Your task to perform on an android device: open app "Google Translate" (install if not already installed) Image 0: 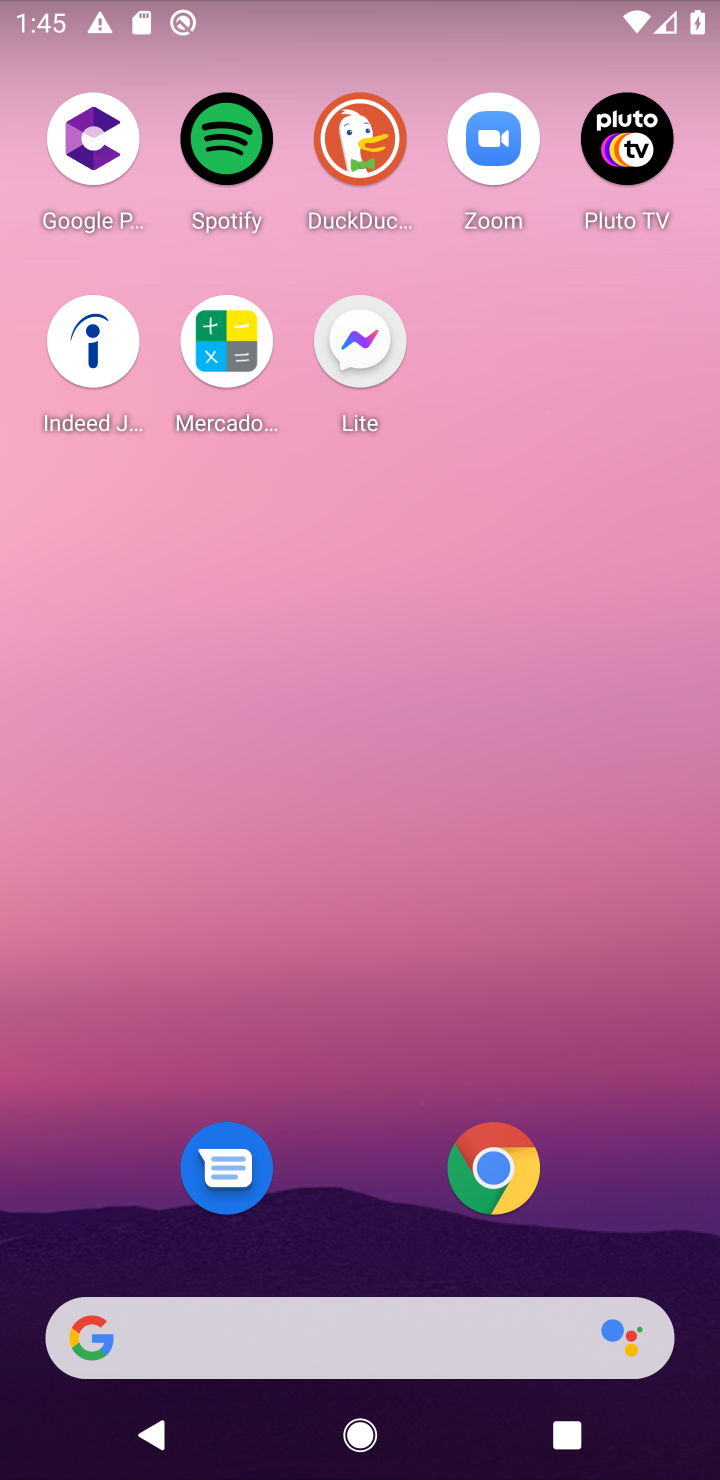
Step 0: drag from (653, 1236) to (523, 187)
Your task to perform on an android device: open app "Google Translate" (install if not already installed) Image 1: 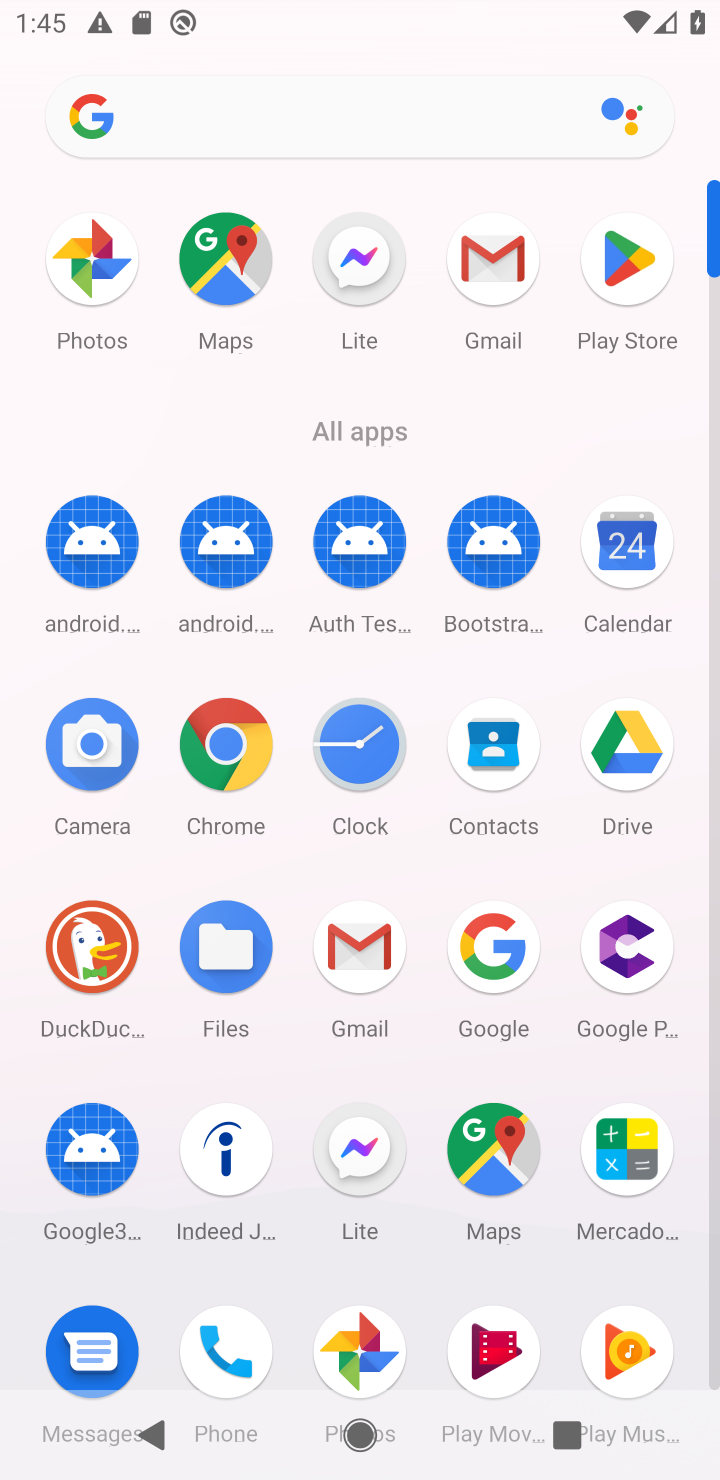
Step 1: drag from (430, 1249) to (360, 415)
Your task to perform on an android device: open app "Google Translate" (install if not already installed) Image 2: 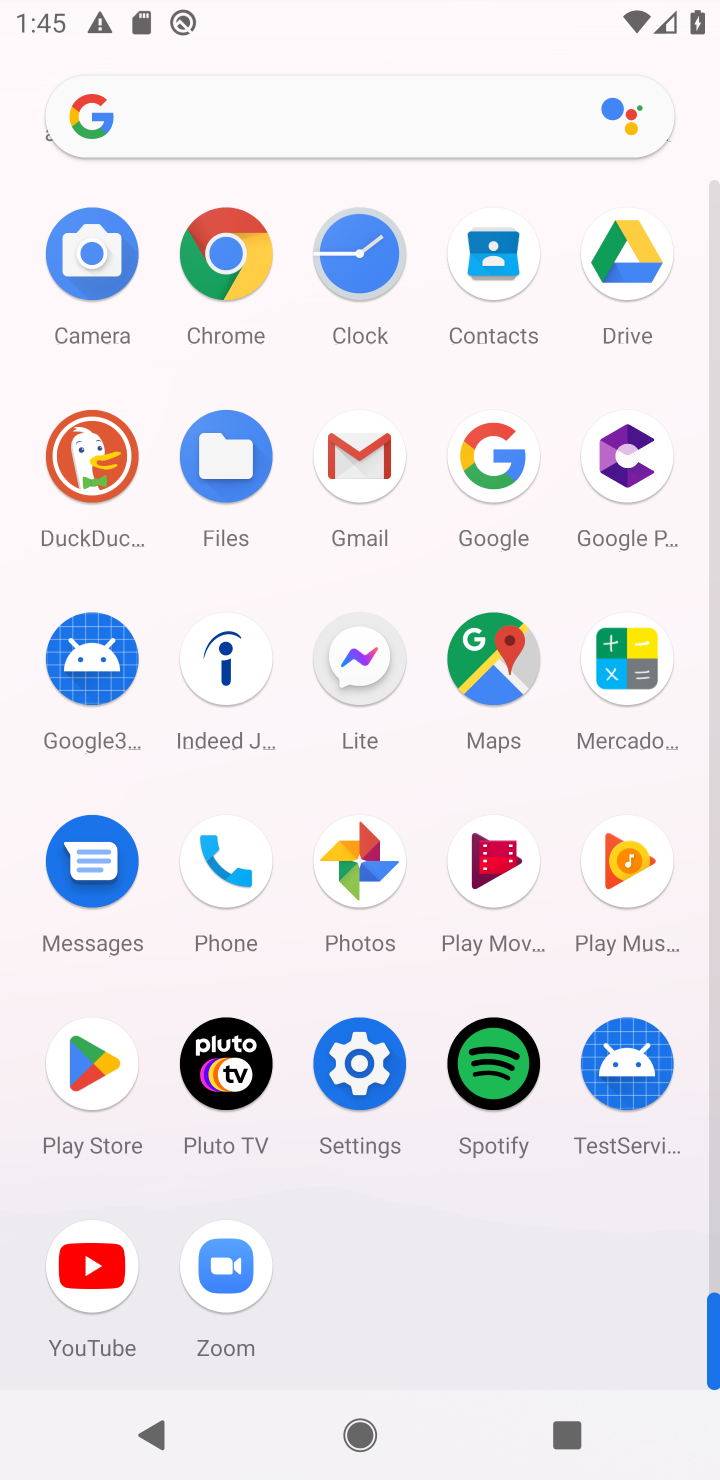
Step 2: click (93, 1068)
Your task to perform on an android device: open app "Google Translate" (install if not already installed) Image 3: 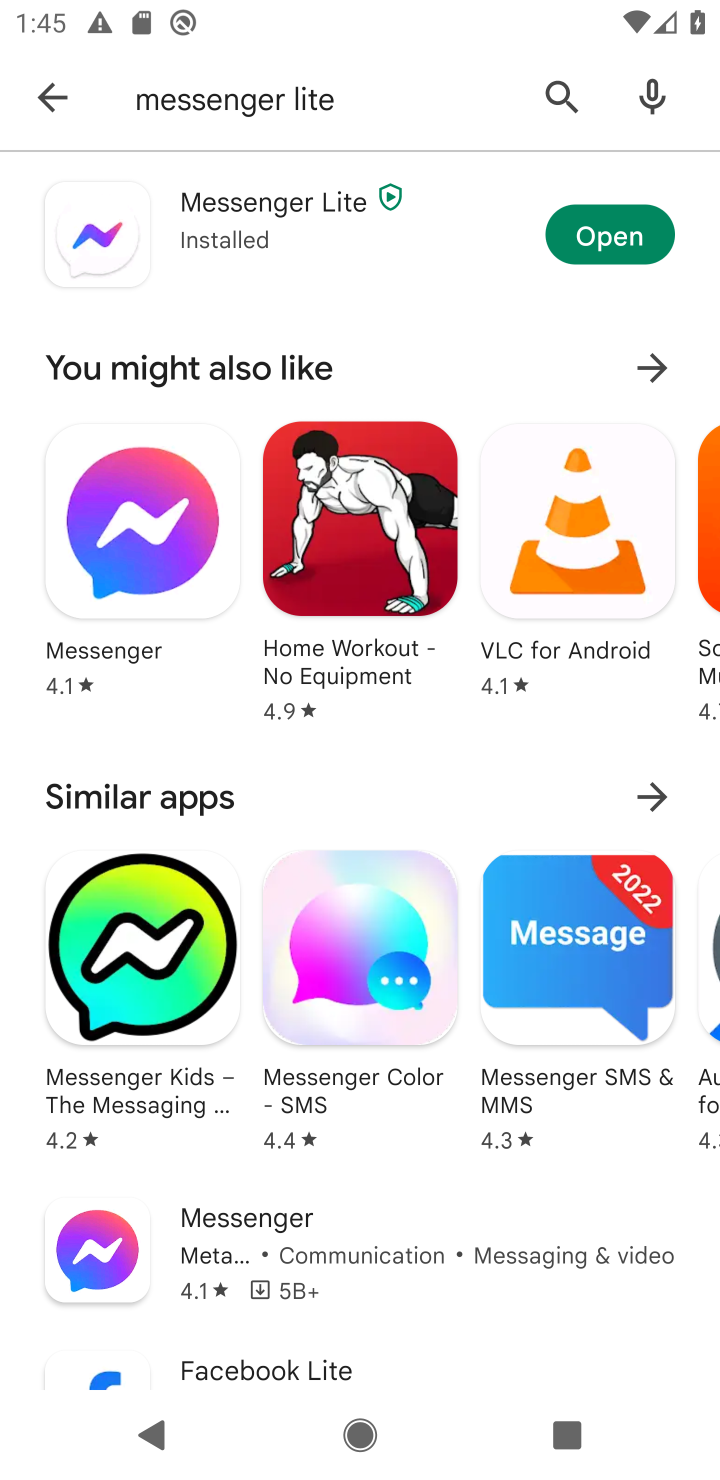
Step 3: click (562, 101)
Your task to perform on an android device: open app "Google Translate" (install if not already installed) Image 4: 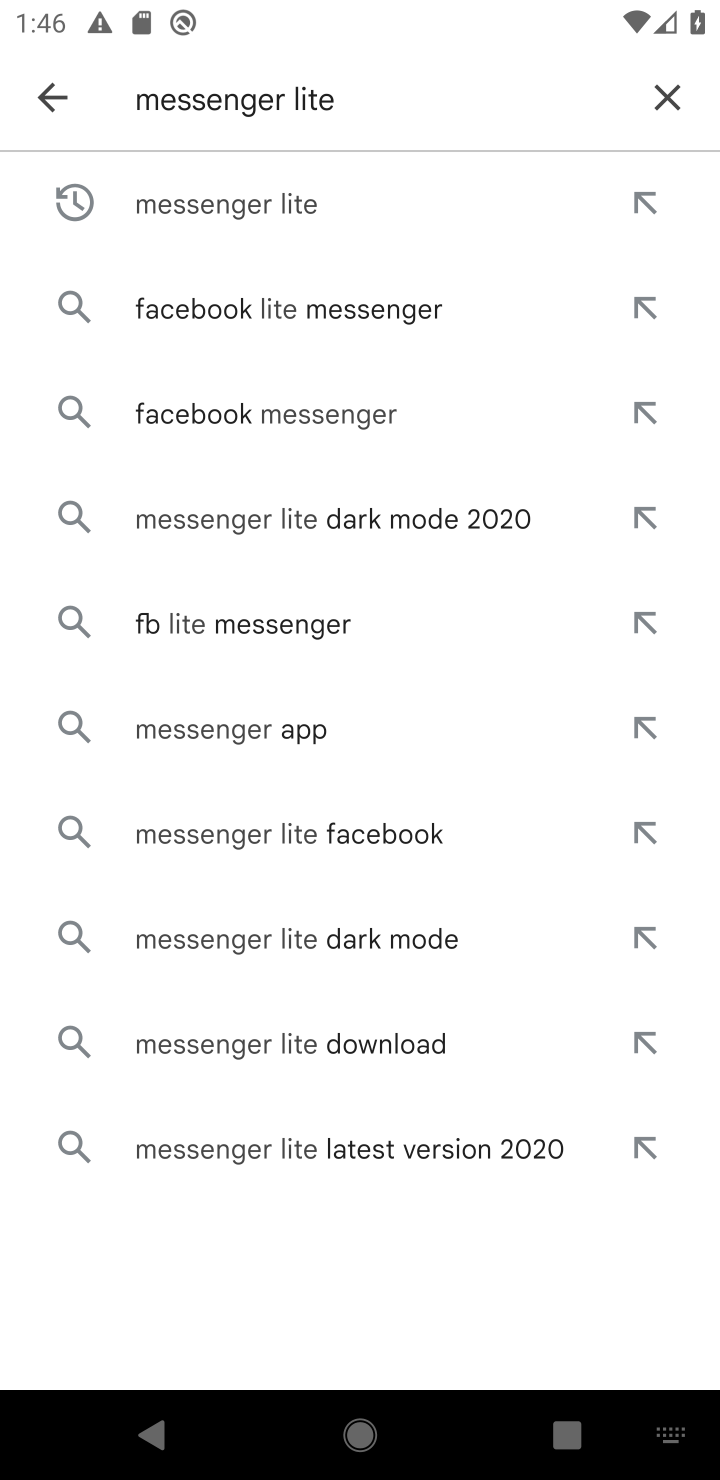
Step 4: click (672, 95)
Your task to perform on an android device: open app "Google Translate" (install if not already installed) Image 5: 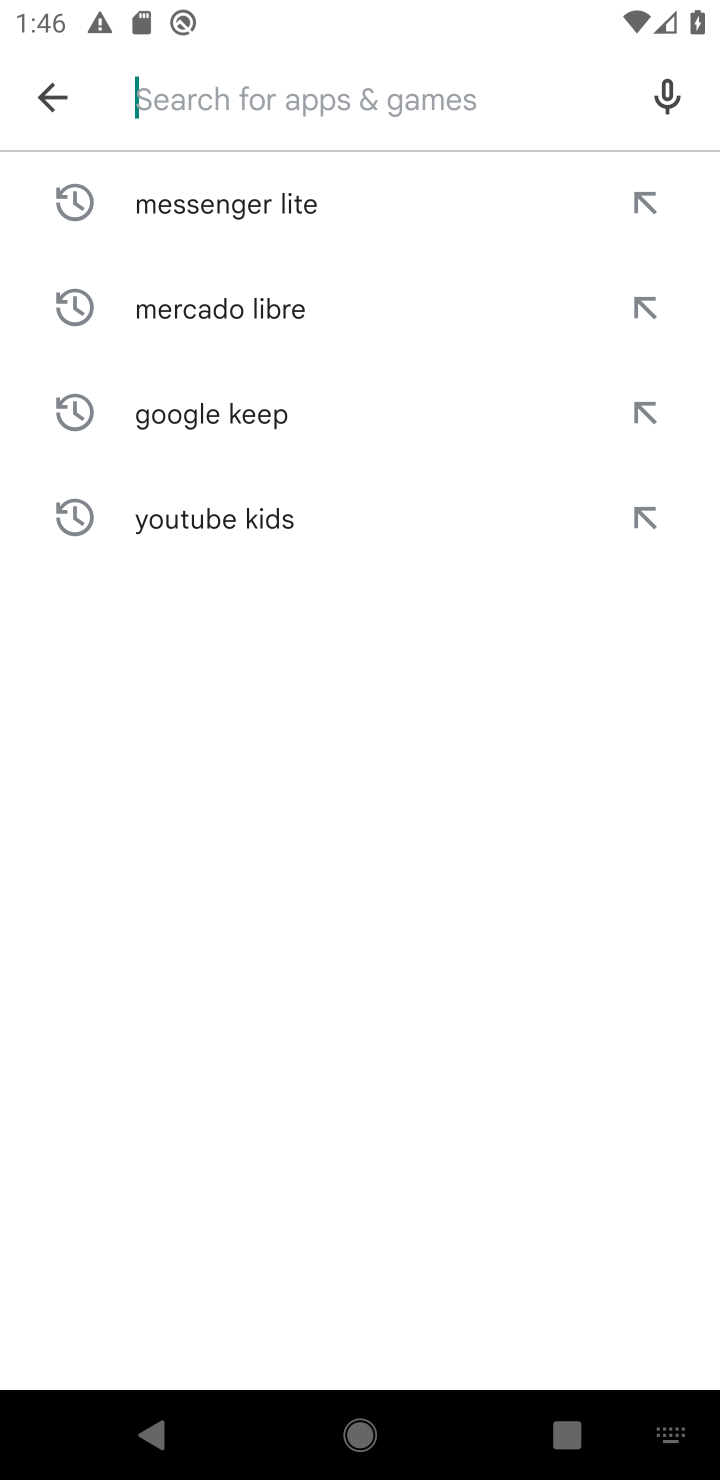
Step 5: type "Google Translate"
Your task to perform on an android device: open app "Google Translate" (install if not already installed) Image 6: 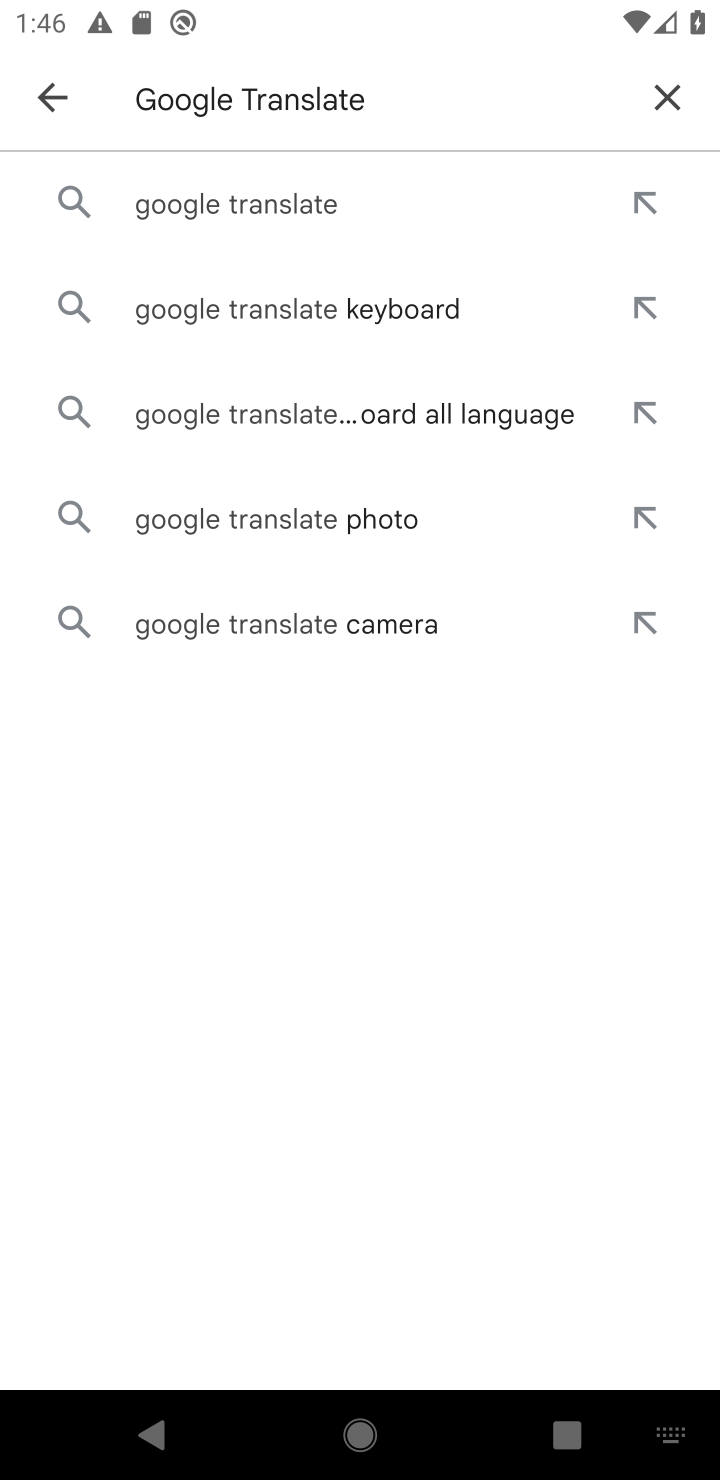
Step 6: click (253, 203)
Your task to perform on an android device: open app "Google Translate" (install if not already installed) Image 7: 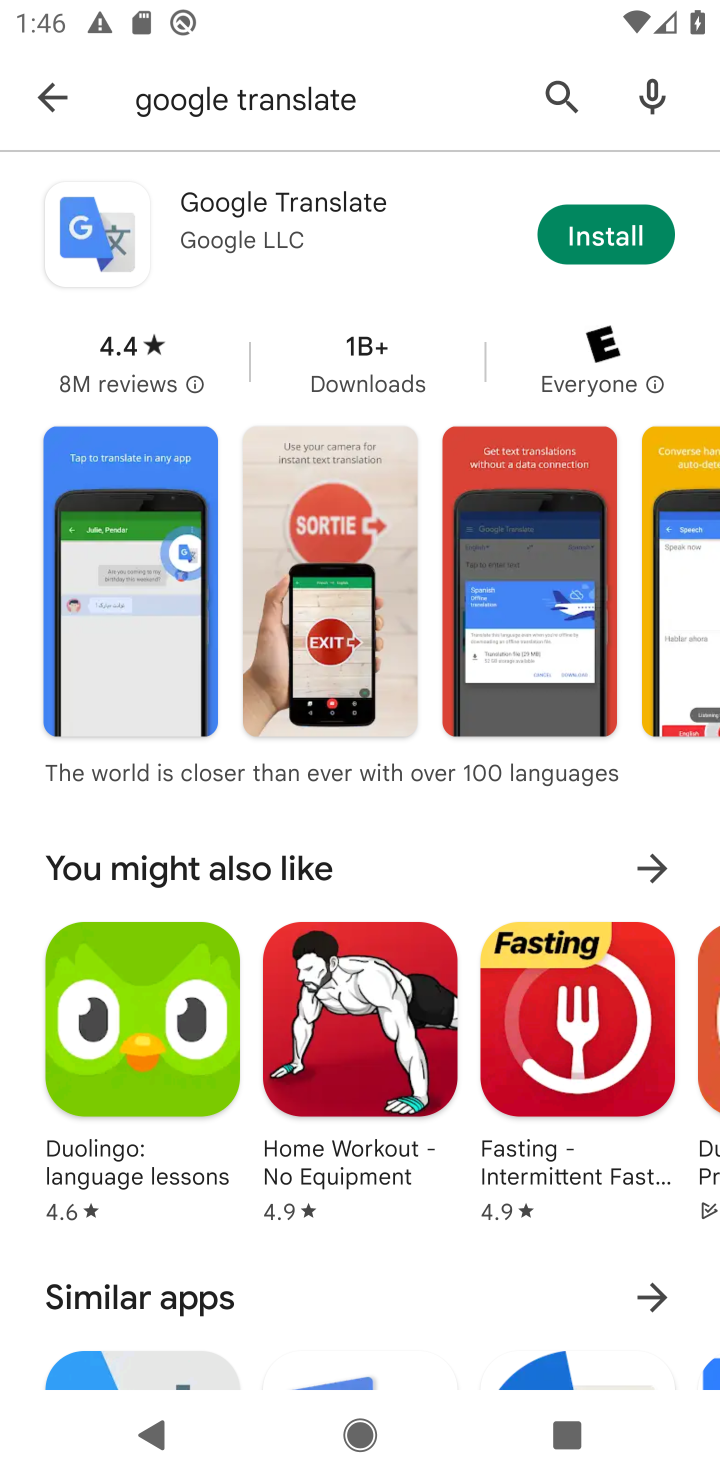
Step 7: click (259, 212)
Your task to perform on an android device: open app "Google Translate" (install if not already installed) Image 8: 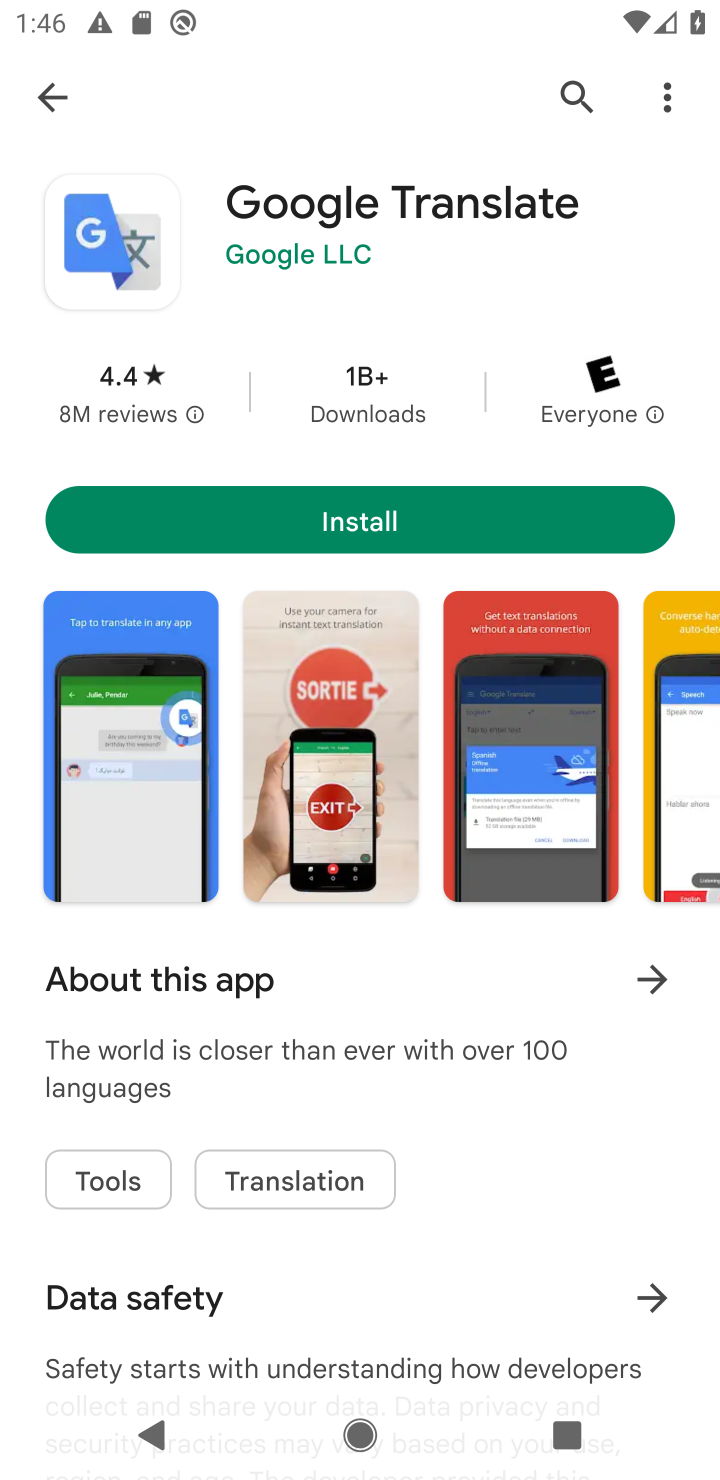
Step 8: click (350, 515)
Your task to perform on an android device: open app "Google Translate" (install if not already installed) Image 9: 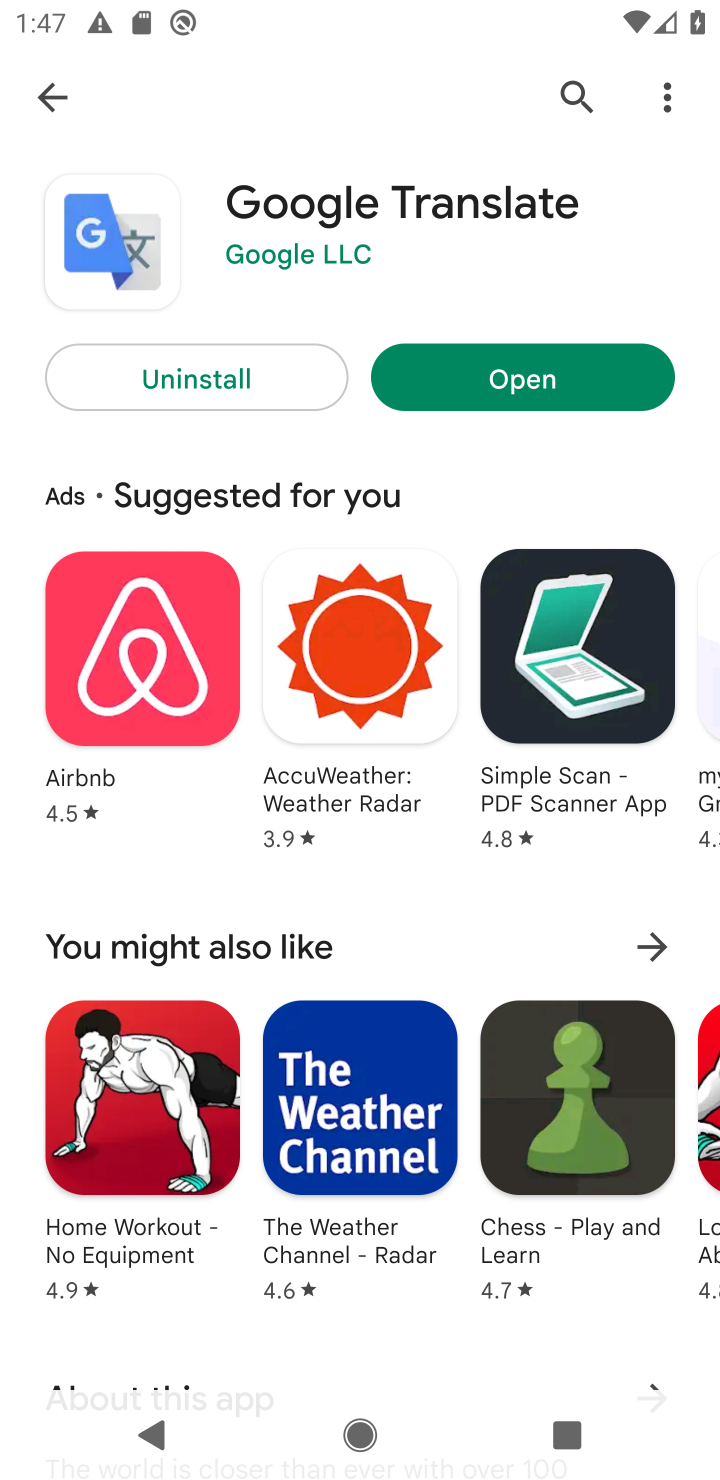
Step 9: click (529, 375)
Your task to perform on an android device: open app "Google Translate" (install if not already installed) Image 10: 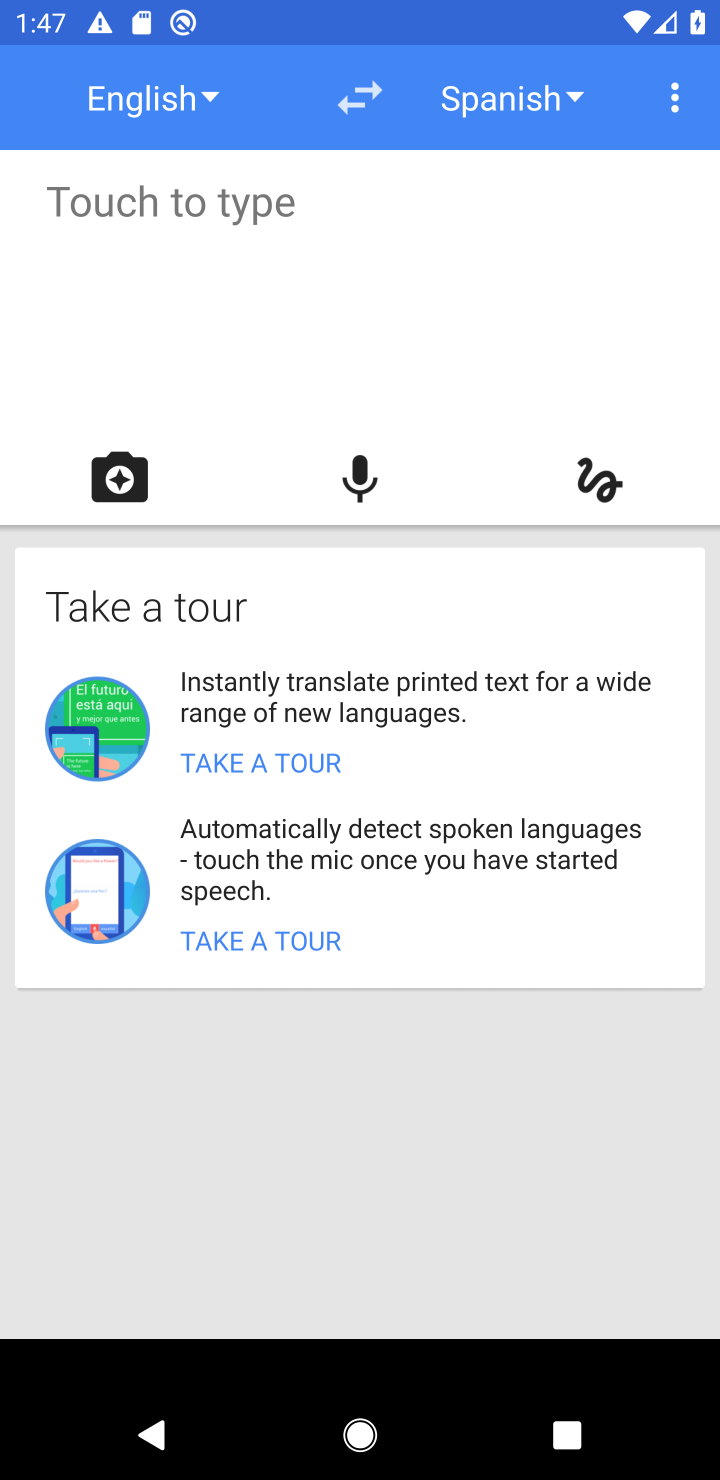
Step 10: task complete